Your task to perform on an android device: refresh tabs in the chrome app Image 0: 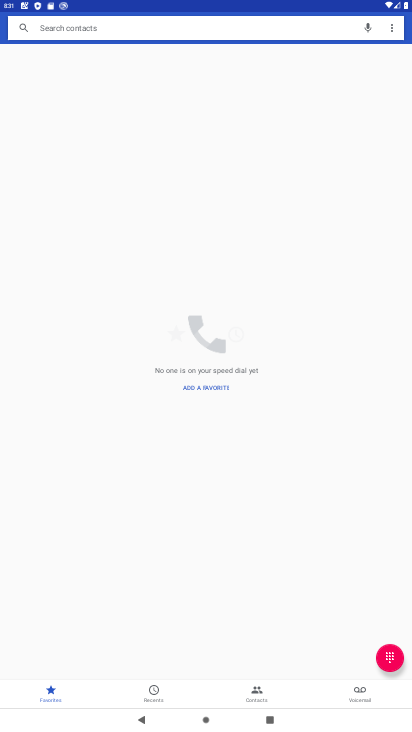
Step 0: task complete